Your task to perform on an android device: Set the phone to "Do not disturb". Image 0: 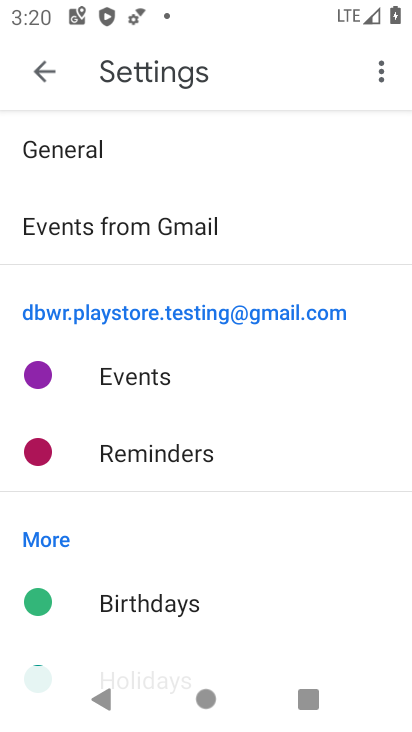
Step 0: press home button
Your task to perform on an android device: Set the phone to "Do not disturb". Image 1: 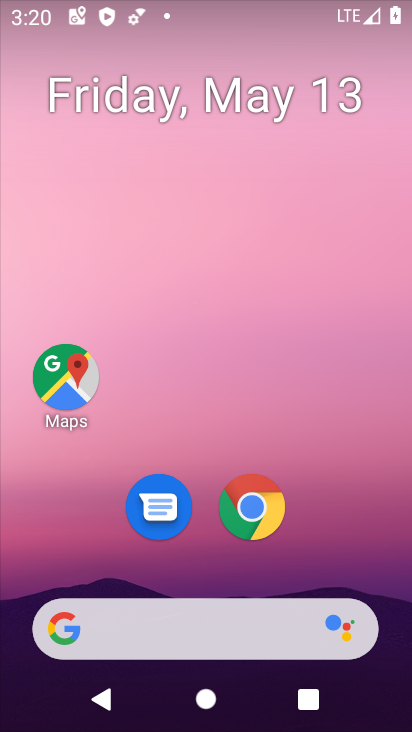
Step 1: drag from (330, 431) to (274, 54)
Your task to perform on an android device: Set the phone to "Do not disturb". Image 2: 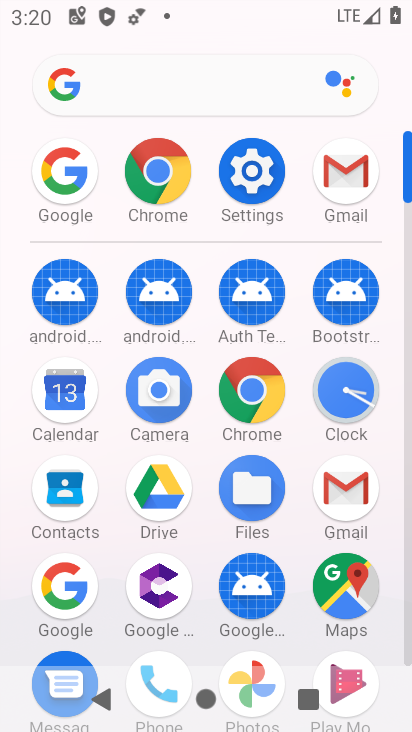
Step 2: click (253, 157)
Your task to perform on an android device: Set the phone to "Do not disturb". Image 3: 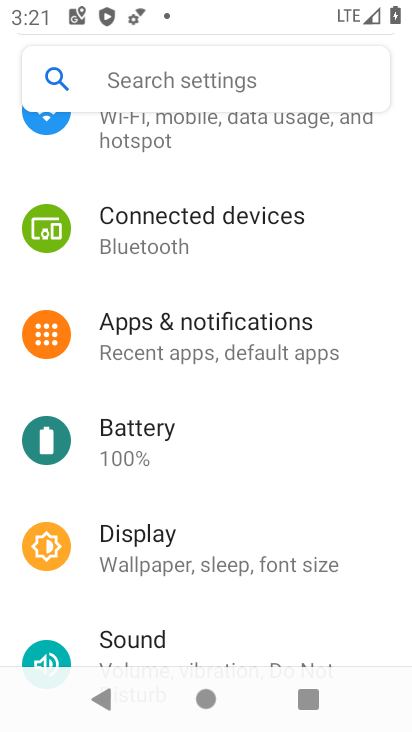
Step 3: drag from (247, 254) to (243, 568)
Your task to perform on an android device: Set the phone to "Do not disturb". Image 4: 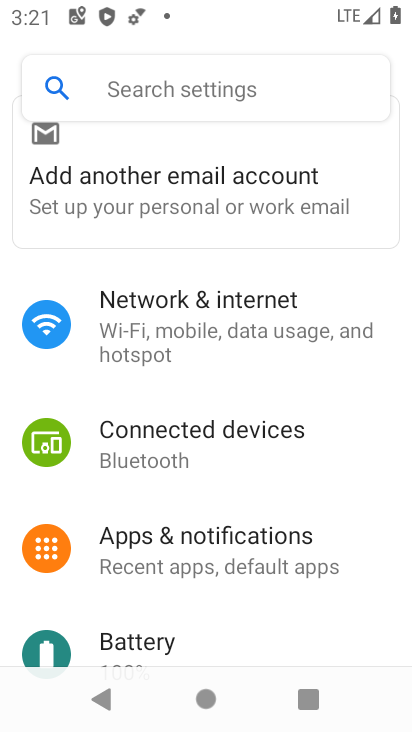
Step 4: drag from (231, 483) to (260, 81)
Your task to perform on an android device: Set the phone to "Do not disturb". Image 5: 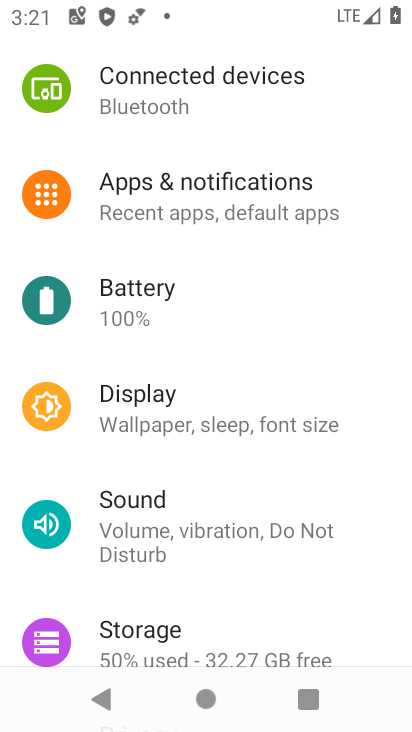
Step 5: click (181, 521)
Your task to perform on an android device: Set the phone to "Do not disturb". Image 6: 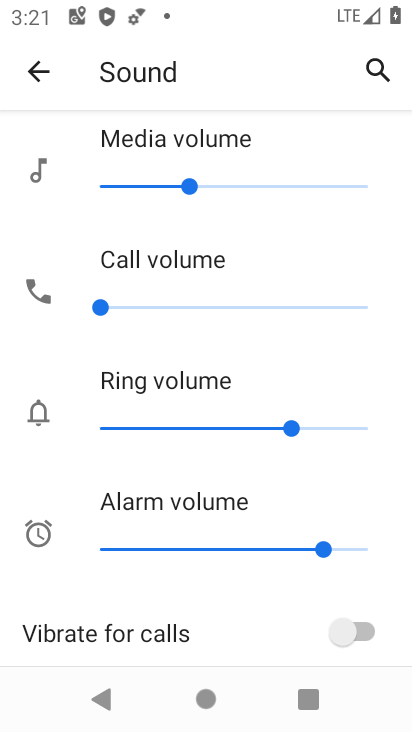
Step 6: drag from (166, 578) to (214, 76)
Your task to perform on an android device: Set the phone to "Do not disturb". Image 7: 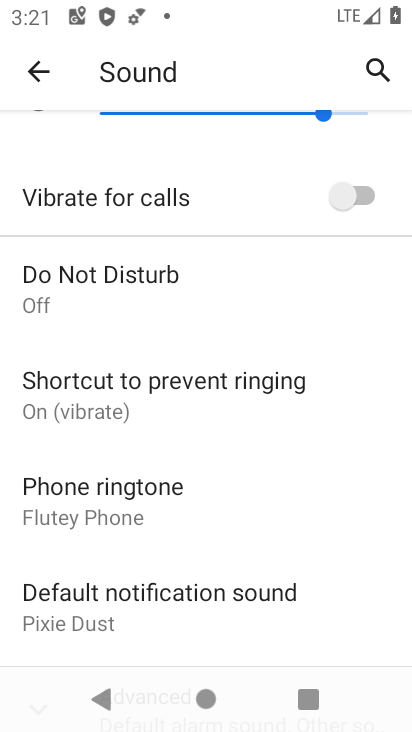
Step 7: click (181, 301)
Your task to perform on an android device: Set the phone to "Do not disturb". Image 8: 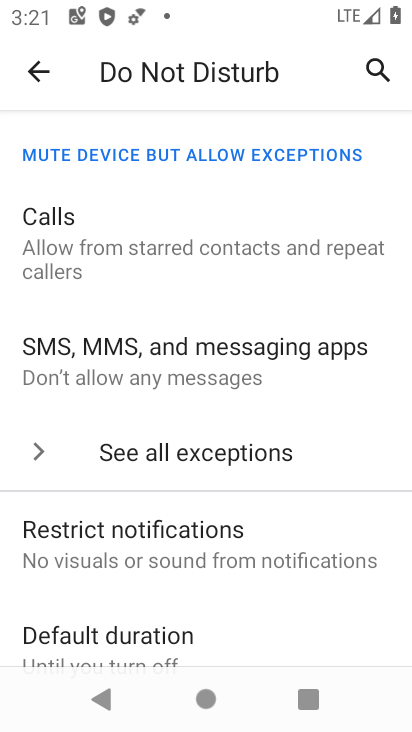
Step 8: drag from (283, 512) to (285, 126)
Your task to perform on an android device: Set the phone to "Do not disturb". Image 9: 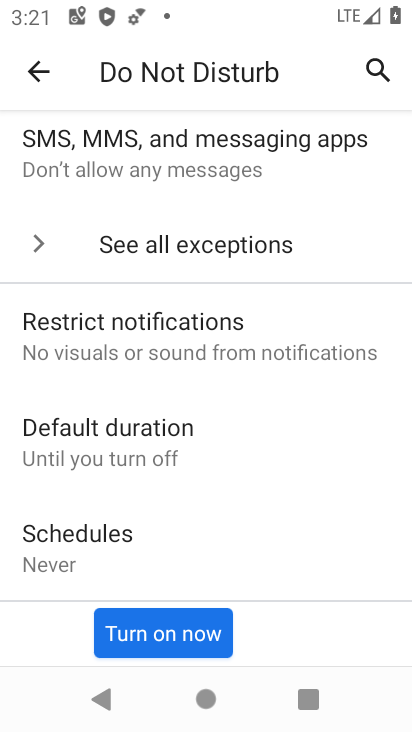
Step 9: click (173, 629)
Your task to perform on an android device: Set the phone to "Do not disturb". Image 10: 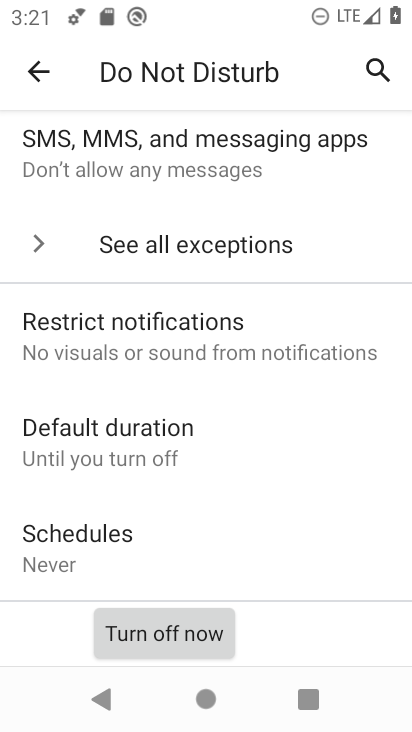
Step 10: task complete